Your task to perform on an android device: turn on the 12-hour format for clock Image 0: 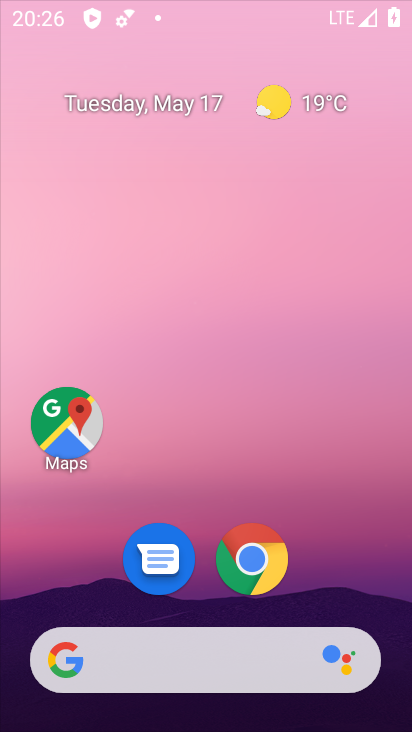
Step 0: click (301, 116)
Your task to perform on an android device: turn on the 12-hour format for clock Image 1: 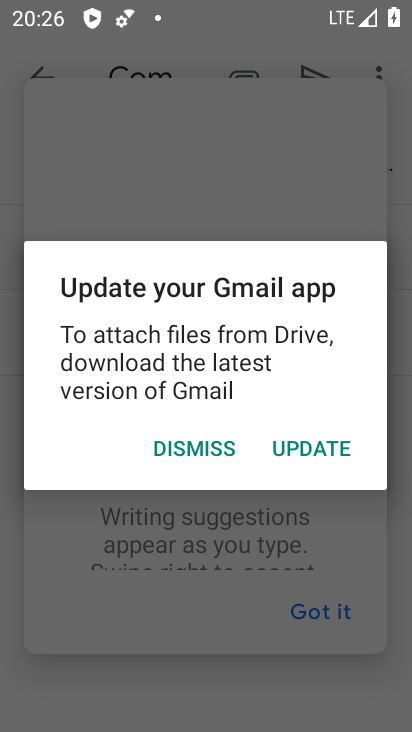
Step 1: press home button
Your task to perform on an android device: turn on the 12-hour format for clock Image 2: 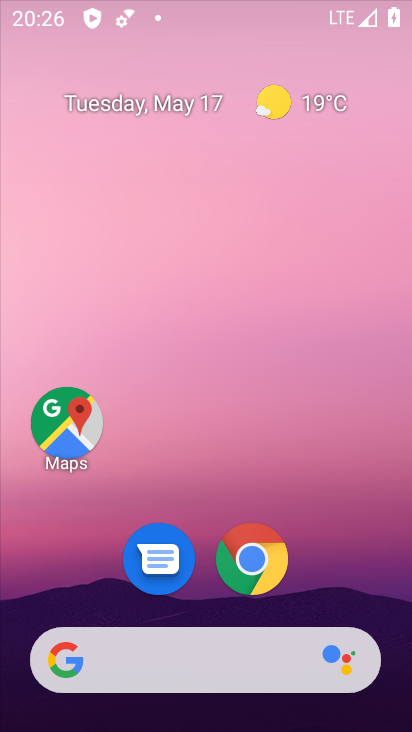
Step 2: drag from (217, 531) to (289, 68)
Your task to perform on an android device: turn on the 12-hour format for clock Image 3: 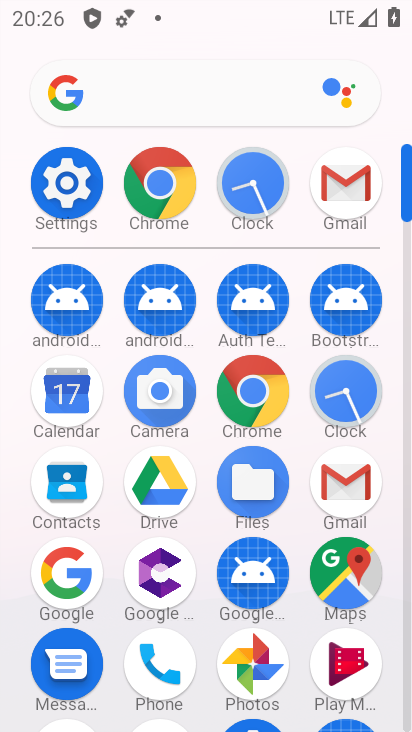
Step 3: click (357, 393)
Your task to perform on an android device: turn on the 12-hour format for clock Image 4: 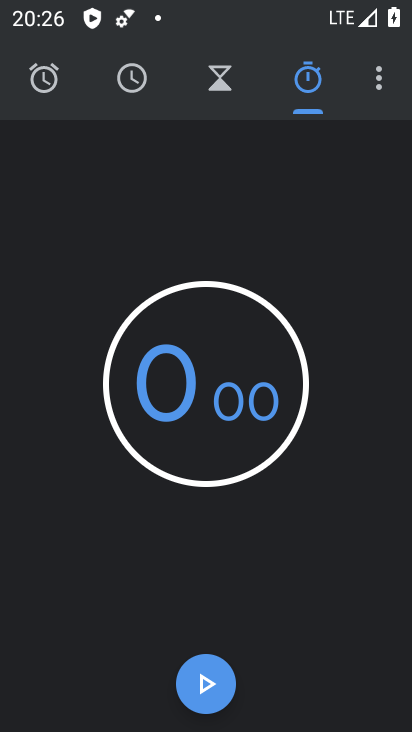
Step 4: drag from (284, 574) to (277, 181)
Your task to perform on an android device: turn on the 12-hour format for clock Image 5: 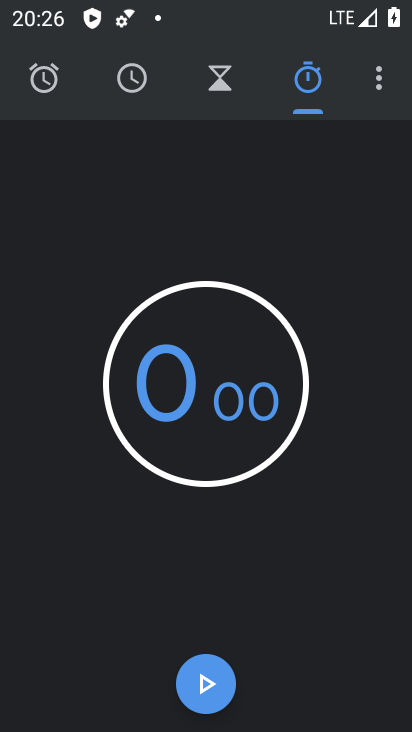
Step 5: click (379, 76)
Your task to perform on an android device: turn on the 12-hour format for clock Image 6: 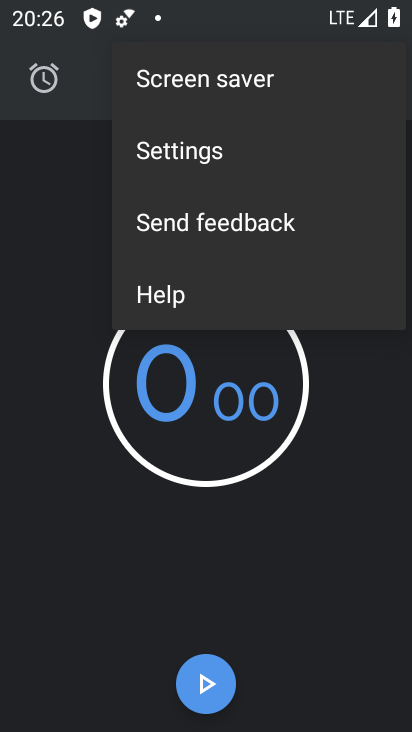
Step 6: click (192, 158)
Your task to perform on an android device: turn on the 12-hour format for clock Image 7: 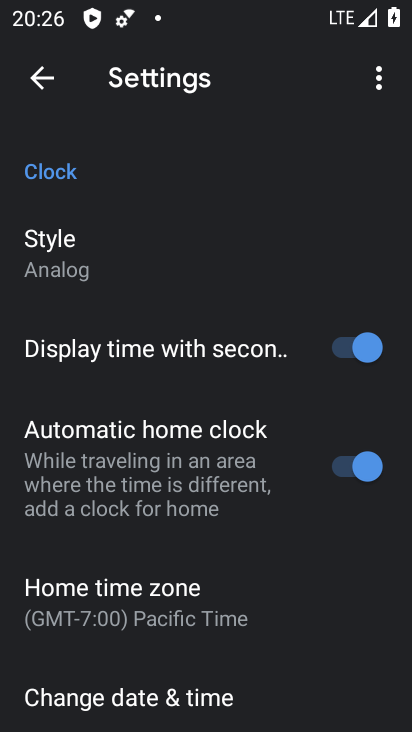
Step 7: drag from (238, 470) to (290, 108)
Your task to perform on an android device: turn on the 12-hour format for clock Image 8: 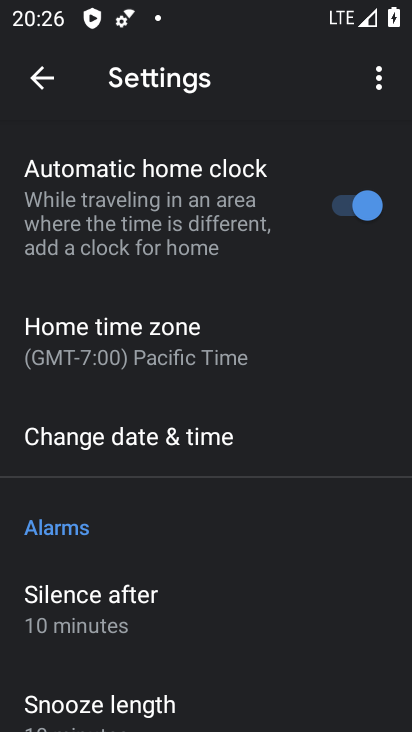
Step 8: click (172, 435)
Your task to perform on an android device: turn on the 12-hour format for clock Image 9: 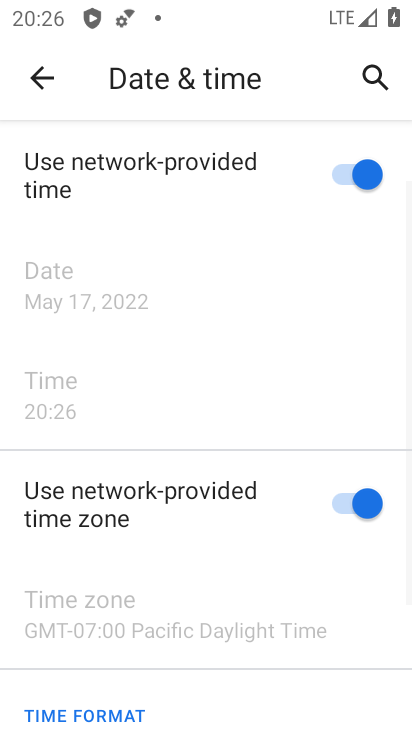
Step 9: drag from (133, 398) to (212, 7)
Your task to perform on an android device: turn on the 12-hour format for clock Image 10: 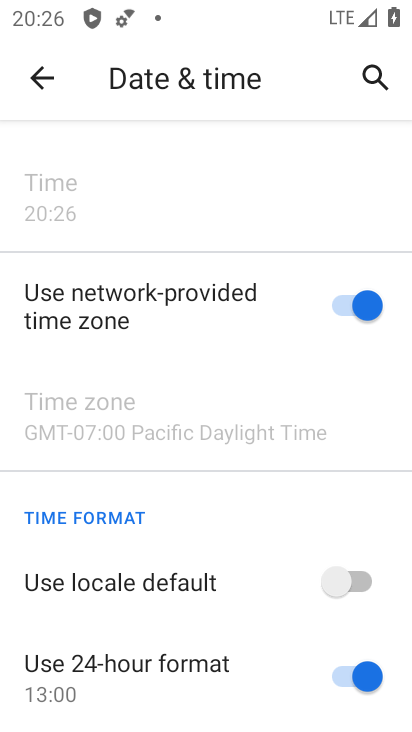
Step 10: drag from (242, 559) to (260, 224)
Your task to perform on an android device: turn on the 12-hour format for clock Image 11: 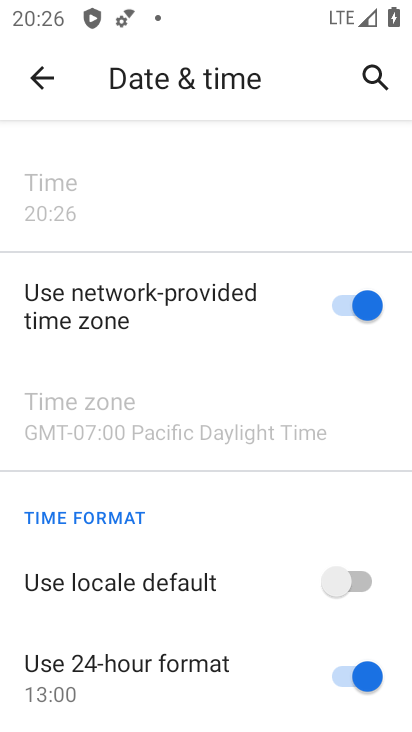
Step 11: click (331, 679)
Your task to perform on an android device: turn on the 12-hour format for clock Image 12: 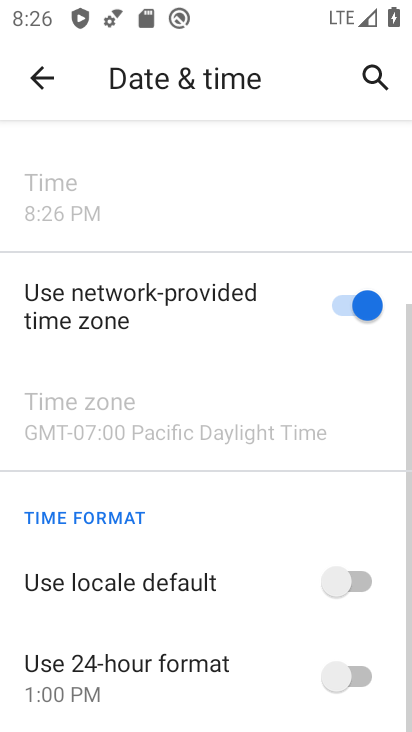
Step 12: task complete